Your task to perform on an android device: set default search engine in the chrome app Image 0: 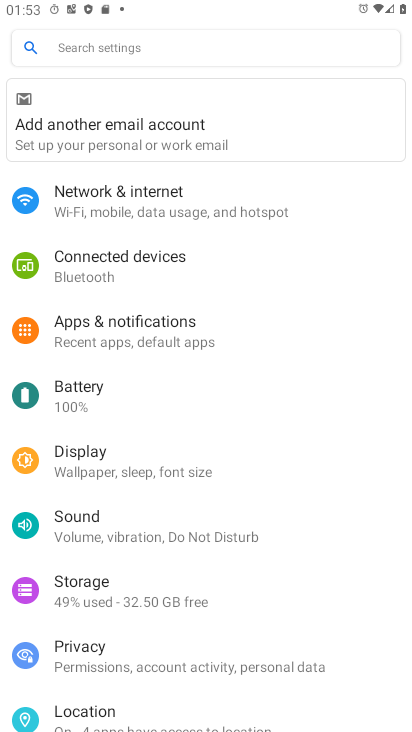
Step 0: press home button
Your task to perform on an android device: set default search engine in the chrome app Image 1: 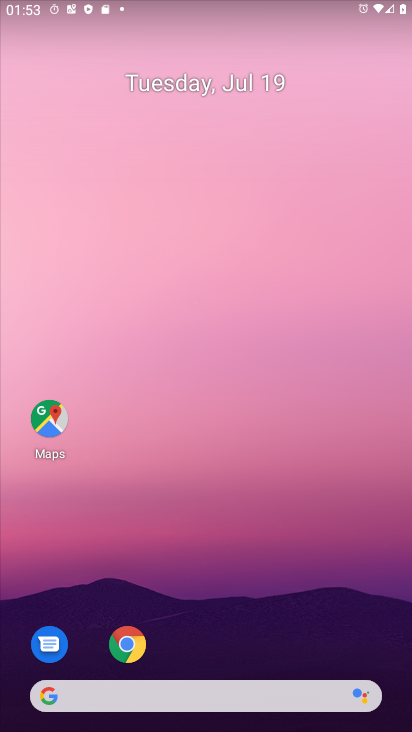
Step 1: drag from (202, 718) to (216, 160)
Your task to perform on an android device: set default search engine in the chrome app Image 2: 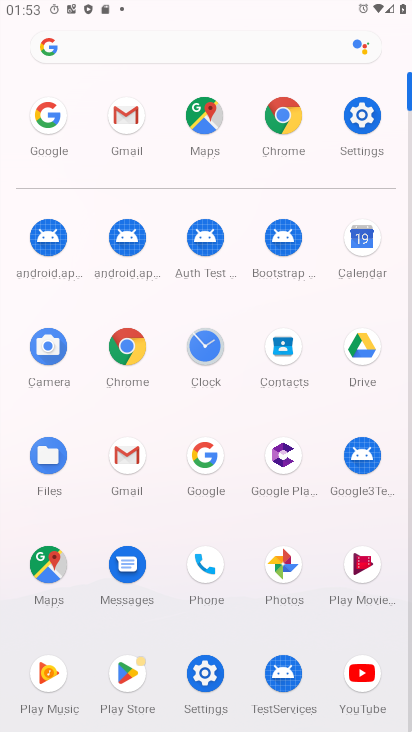
Step 2: click (127, 347)
Your task to perform on an android device: set default search engine in the chrome app Image 3: 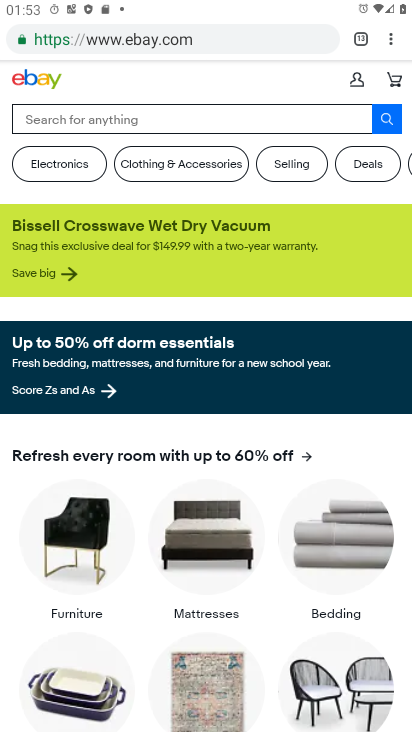
Step 3: click (389, 44)
Your task to perform on an android device: set default search engine in the chrome app Image 4: 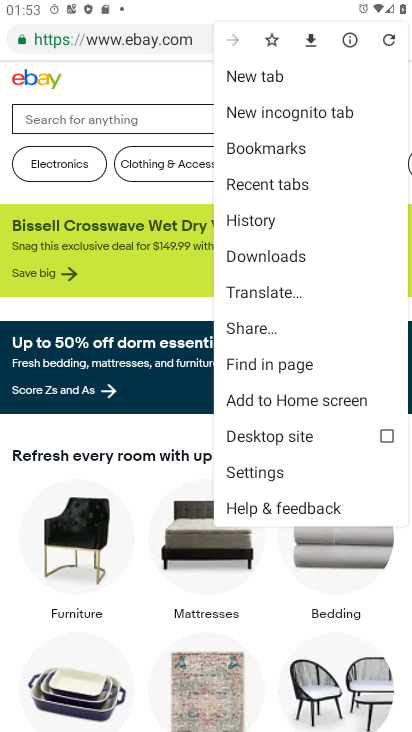
Step 4: click (256, 473)
Your task to perform on an android device: set default search engine in the chrome app Image 5: 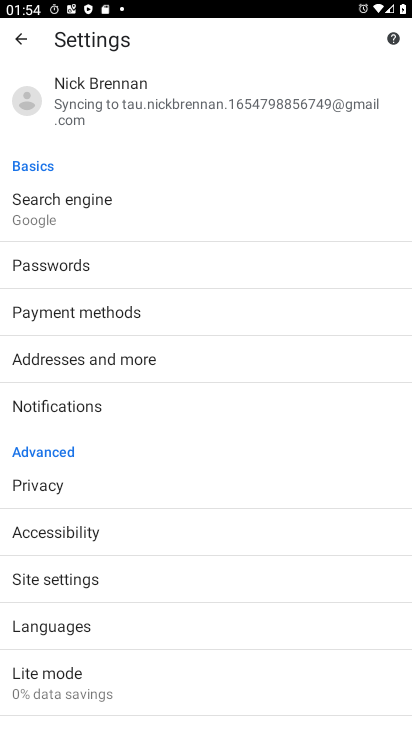
Step 5: click (59, 212)
Your task to perform on an android device: set default search engine in the chrome app Image 6: 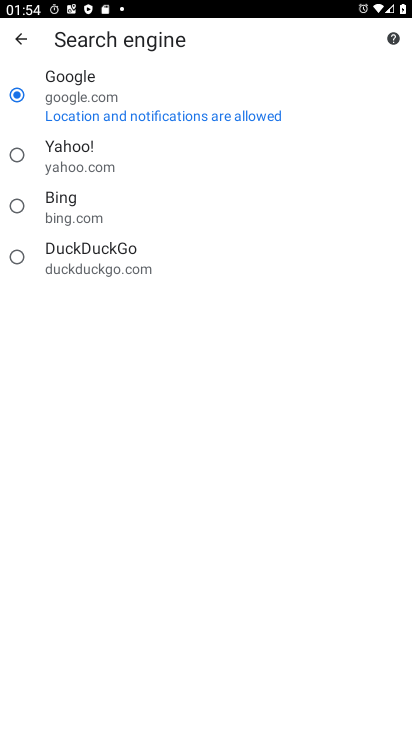
Step 6: click (14, 202)
Your task to perform on an android device: set default search engine in the chrome app Image 7: 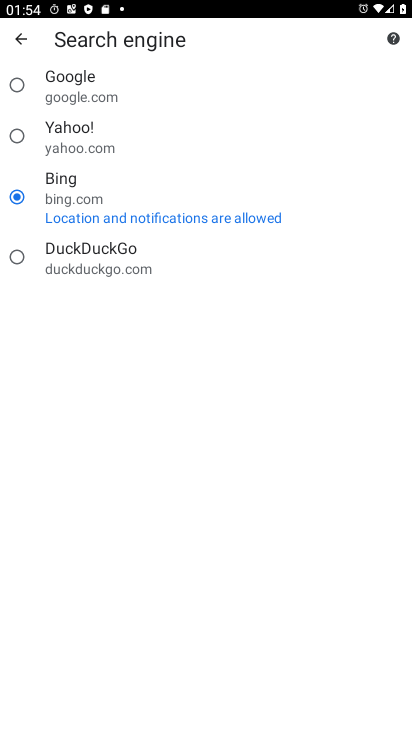
Step 7: task complete